Your task to perform on an android device: change notification settings in the gmail app Image 0: 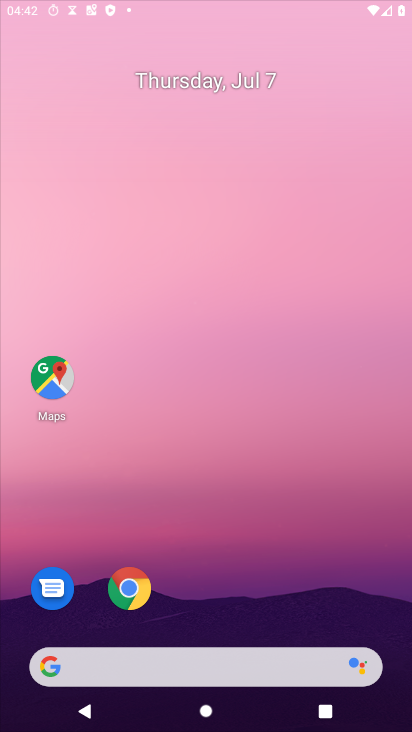
Step 0: press home button
Your task to perform on an android device: change notification settings in the gmail app Image 1: 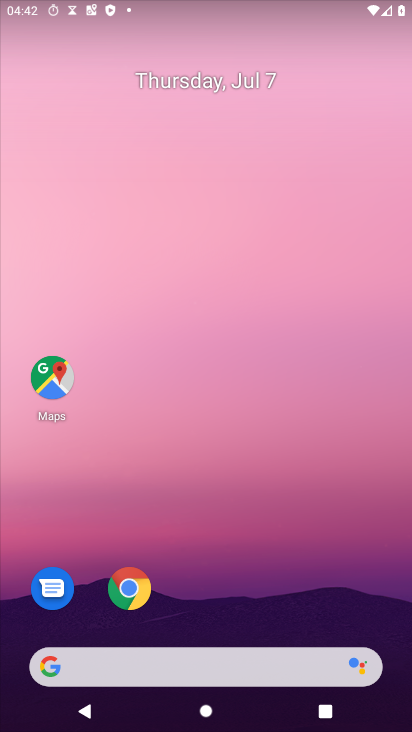
Step 1: drag from (237, 620) to (143, 134)
Your task to perform on an android device: change notification settings in the gmail app Image 2: 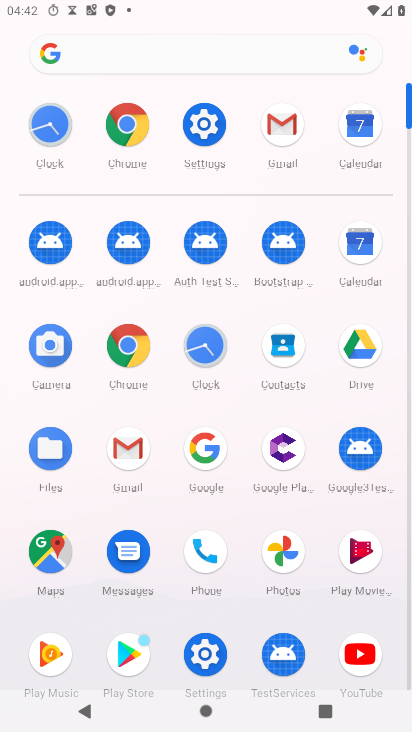
Step 2: click (282, 125)
Your task to perform on an android device: change notification settings in the gmail app Image 3: 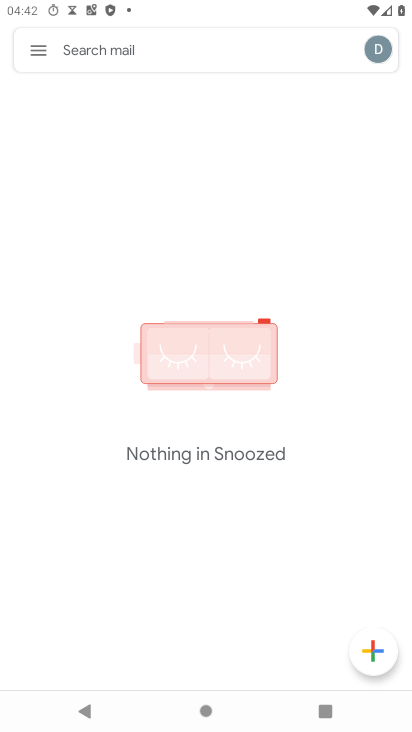
Step 3: click (40, 48)
Your task to perform on an android device: change notification settings in the gmail app Image 4: 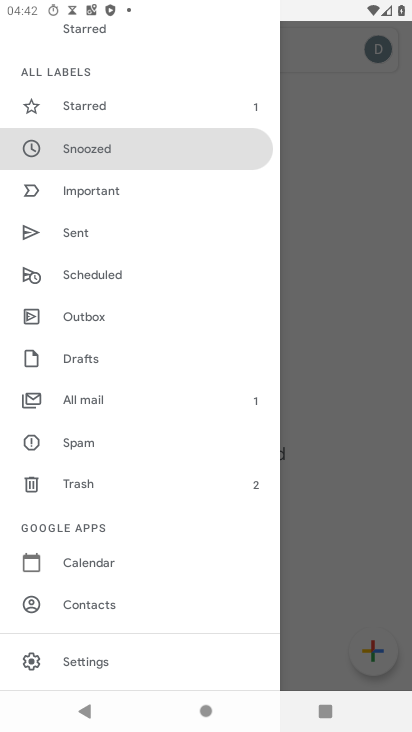
Step 4: click (87, 667)
Your task to perform on an android device: change notification settings in the gmail app Image 5: 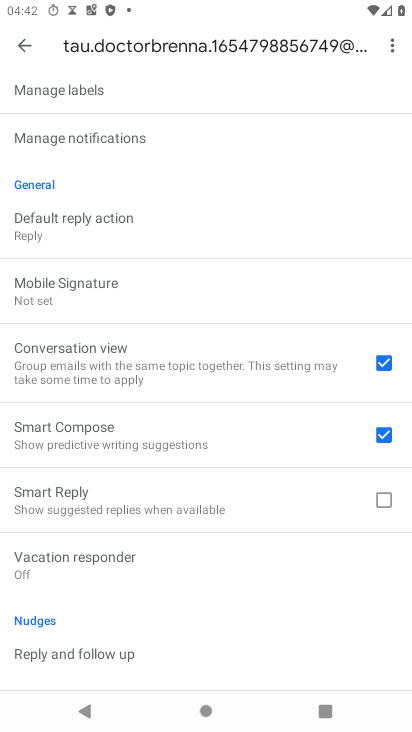
Step 5: click (96, 142)
Your task to perform on an android device: change notification settings in the gmail app Image 6: 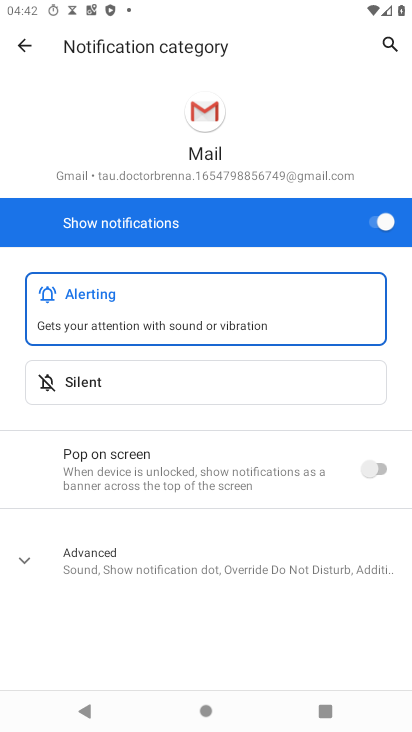
Step 6: click (391, 217)
Your task to perform on an android device: change notification settings in the gmail app Image 7: 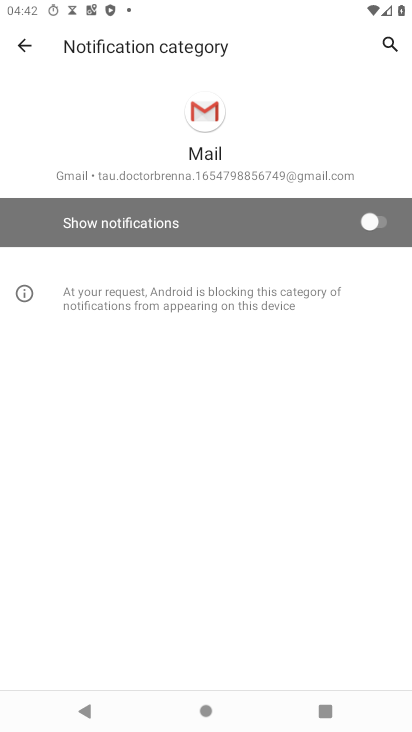
Step 7: task complete